Your task to perform on an android device: Go to Yahoo.com Image 0: 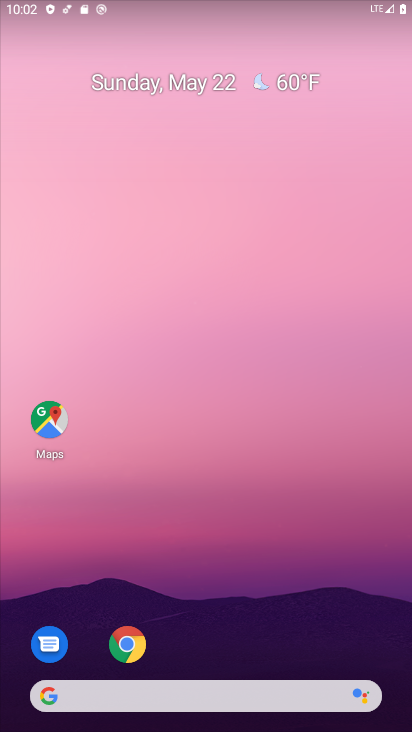
Step 0: drag from (198, 690) to (303, 350)
Your task to perform on an android device: Go to Yahoo.com Image 1: 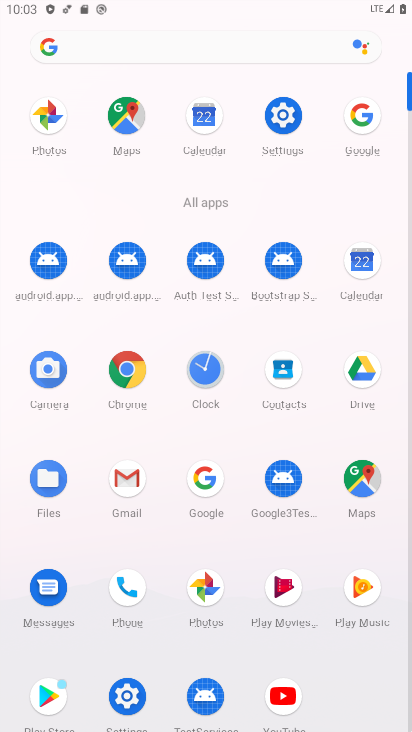
Step 1: click (113, 381)
Your task to perform on an android device: Go to Yahoo.com Image 2: 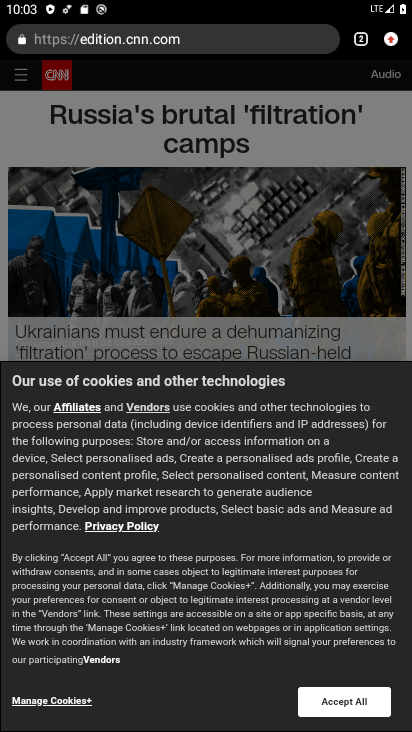
Step 2: click (364, 45)
Your task to perform on an android device: Go to Yahoo.com Image 3: 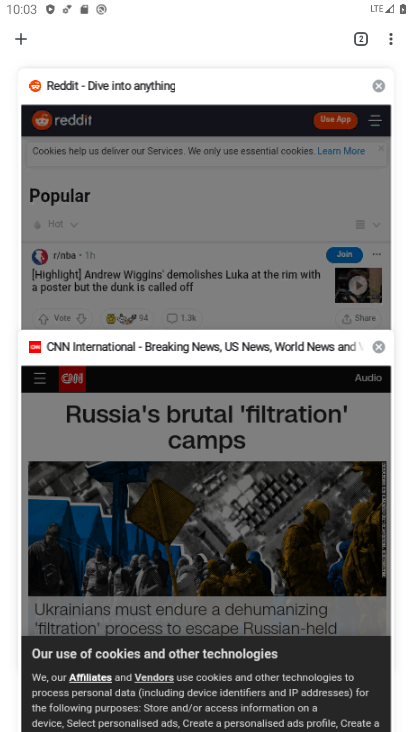
Step 3: click (389, 81)
Your task to perform on an android device: Go to Yahoo.com Image 4: 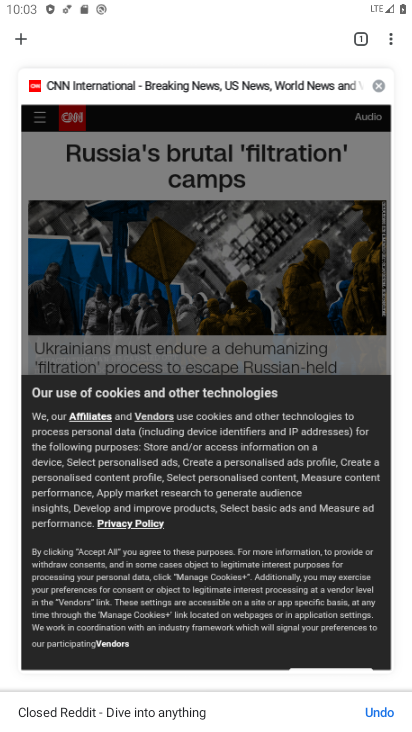
Step 4: click (373, 98)
Your task to perform on an android device: Go to Yahoo.com Image 5: 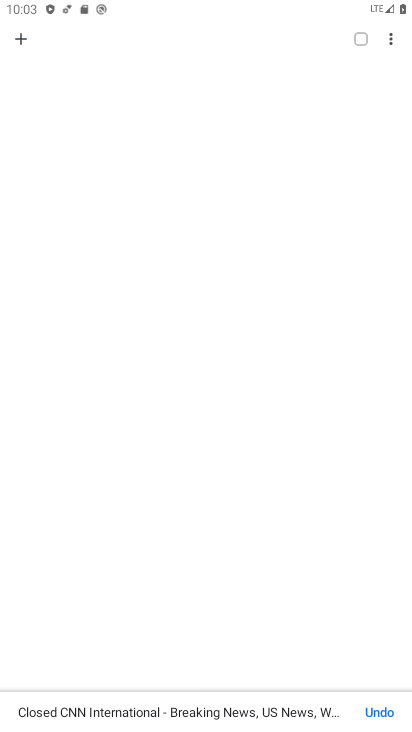
Step 5: click (31, 31)
Your task to perform on an android device: Go to Yahoo.com Image 6: 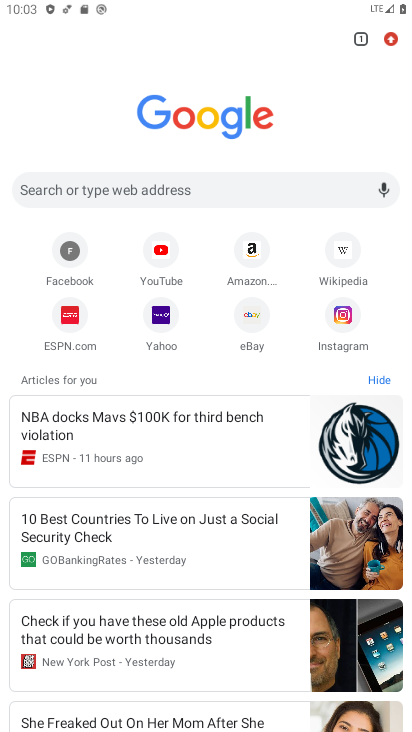
Step 6: click (164, 325)
Your task to perform on an android device: Go to Yahoo.com Image 7: 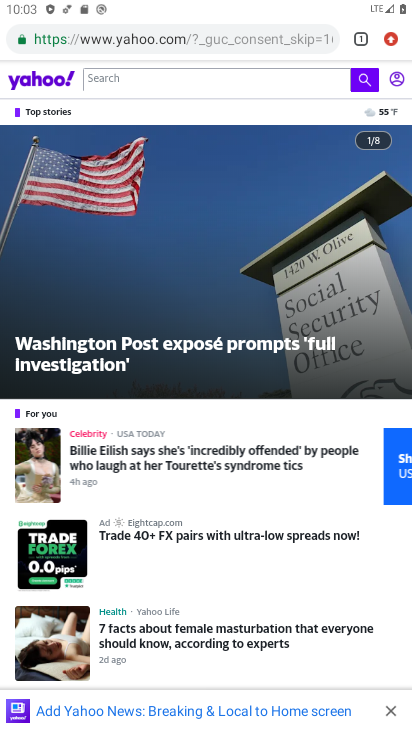
Step 7: task complete